Your task to perform on an android device: Go to Google maps Image 0: 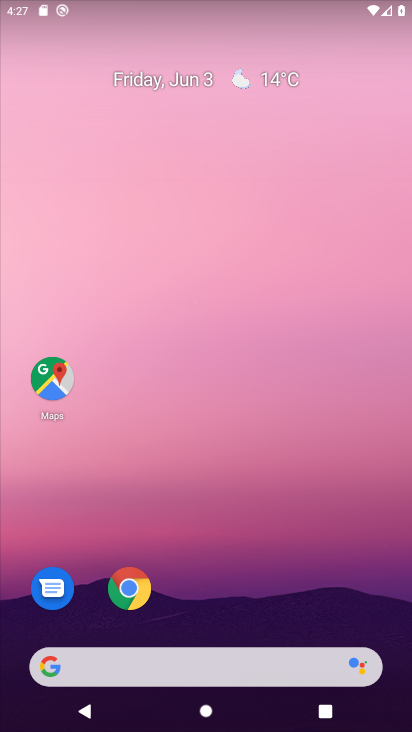
Step 0: drag from (252, 479) to (236, 60)
Your task to perform on an android device: Go to Google maps Image 1: 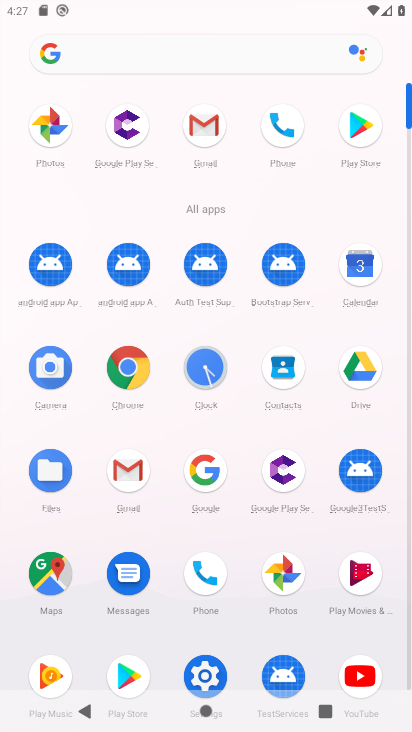
Step 1: click (49, 567)
Your task to perform on an android device: Go to Google maps Image 2: 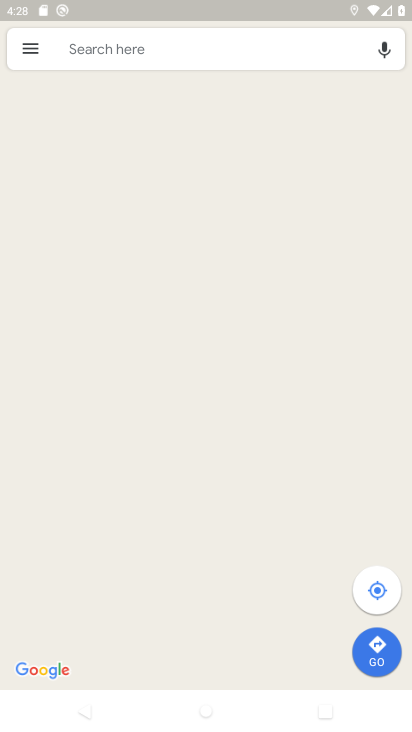
Step 2: task complete